Your task to perform on an android device: turn on javascript in the chrome app Image 0: 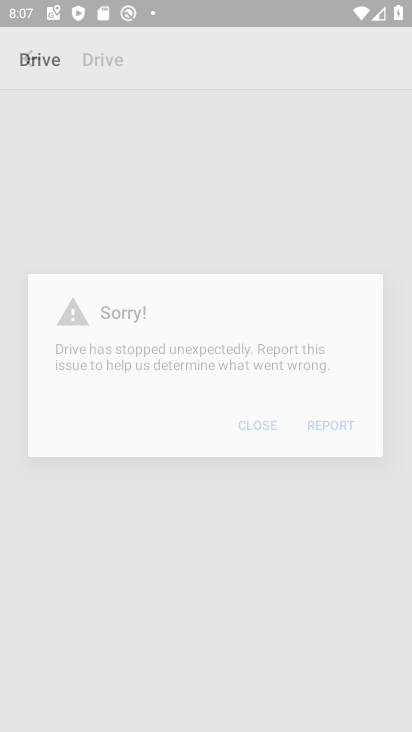
Step 0: drag from (373, 597) to (368, 419)
Your task to perform on an android device: turn on javascript in the chrome app Image 1: 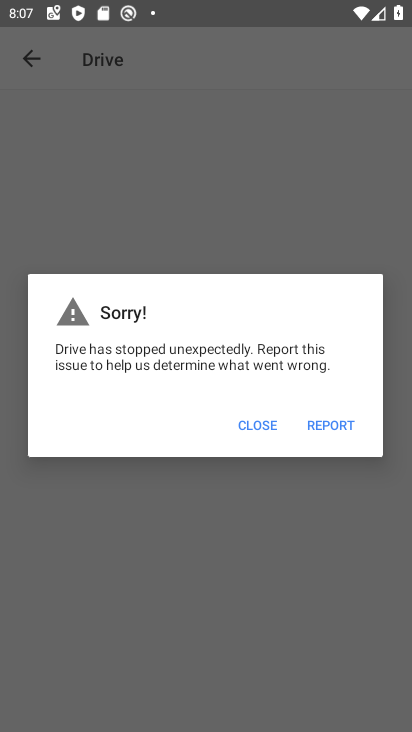
Step 1: press home button
Your task to perform on an android device: turn on javascript in the chrome app Image 2: 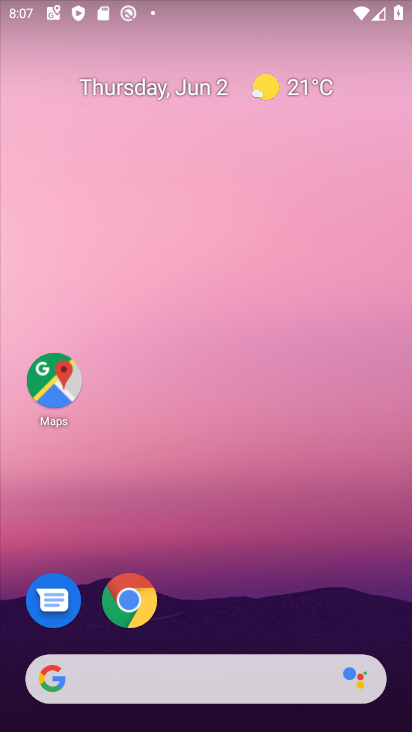
Step 2: drag from (375, 616) to (374, 252)
Your task to perform on an android device: turn on javascript in the chrome app Image 3: 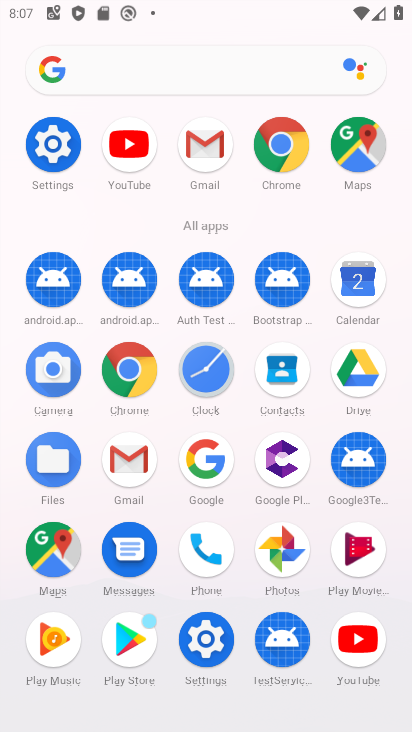
Step 3: click (142, 376)
Your task to perform on an android device: turn on javascript in the chrome app Image 4: 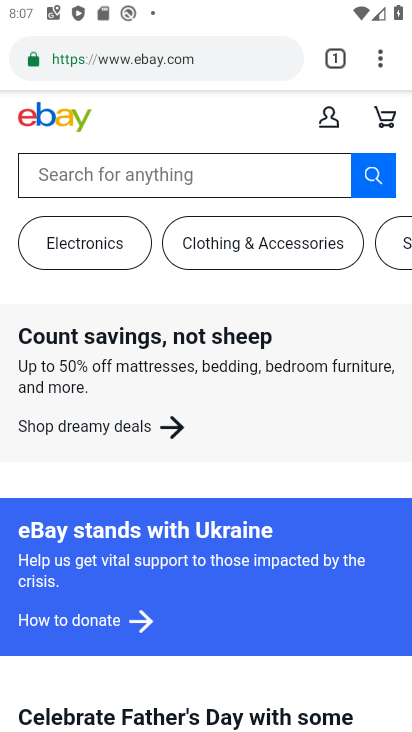
Step 4: click (381, 72)
Your task to perform on an android device: turn on javascript in the chrome app Image 5: 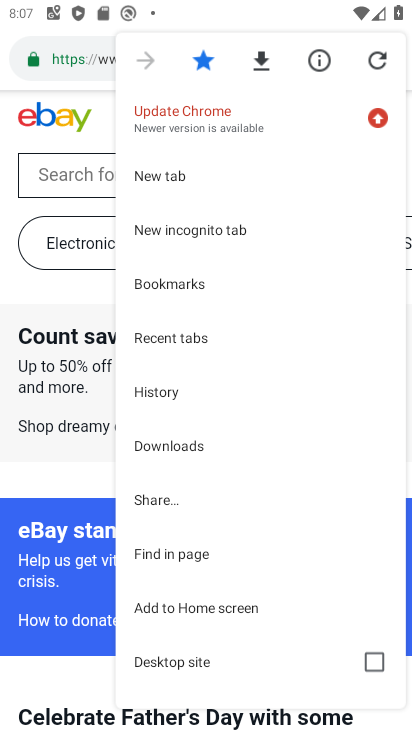
Step 5: drag from (298, 286) to (313, 187)
Your task to perform on an android device: turn on javascript in the chrome app Image 6: 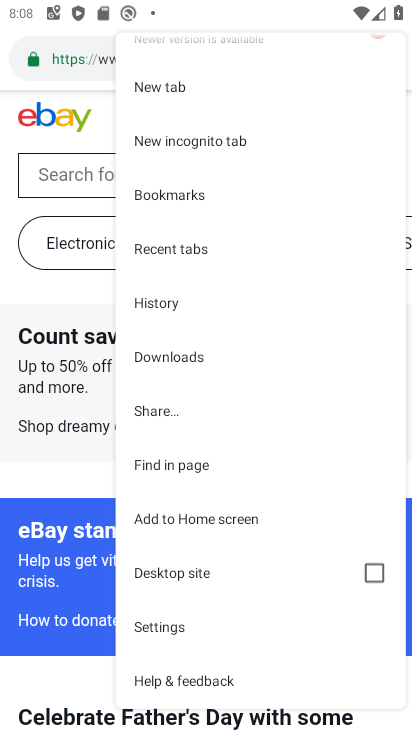
Step 6: drag from (311, 334) to (311, 248)
Your task to perform on an android device: turn on javascript in the chrome app Image 7: 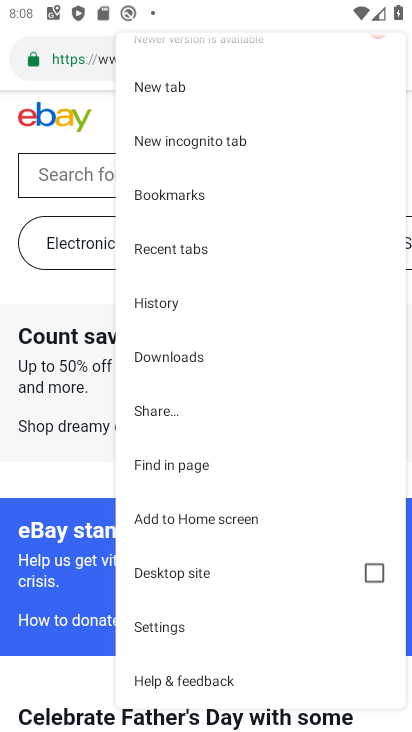
Step 7: drag from (313, 396) to (317, 327)
Your task to perform on an android device: turn on javascript in the chrome app Image 8: 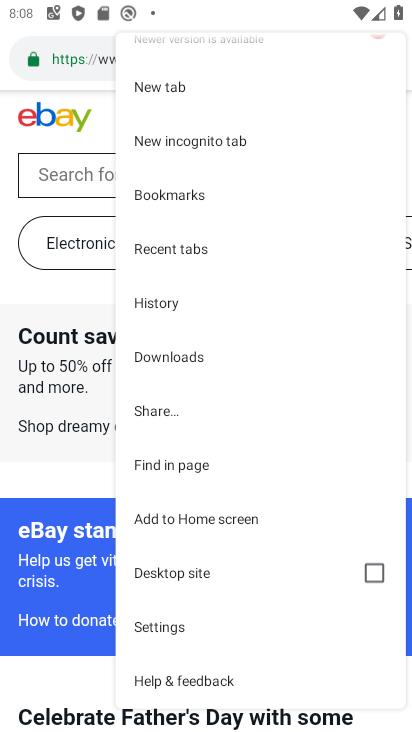
Step 8: click (188, 640)
Your task to perform on an android device: turn on javascript in the chrome app Image 9: 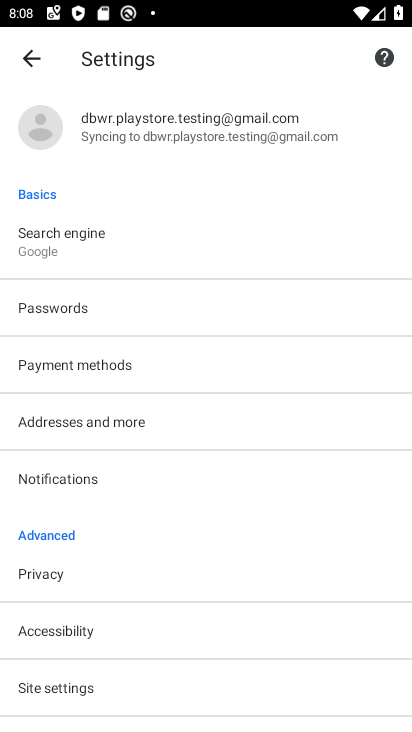
Step 9: drag from (277, 548) to (287, 438)
Your task to perform on an android device: turn on javascript in the chrome app Image 10: 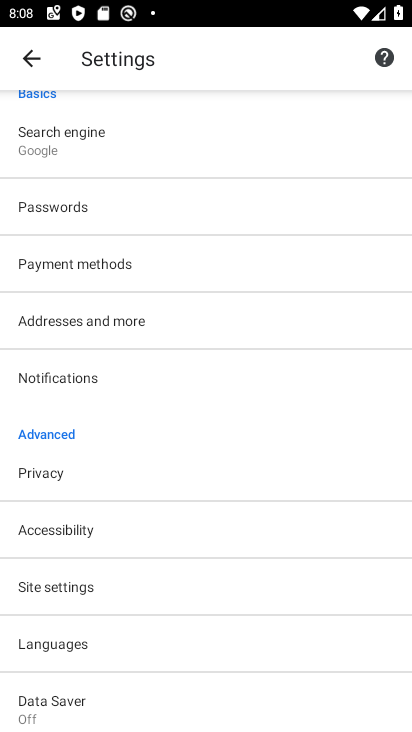
Step 10: drag from (282, 585) to (281, 491)
Your task to perform on an android device: turn on javascript in the chrome app Image 11: 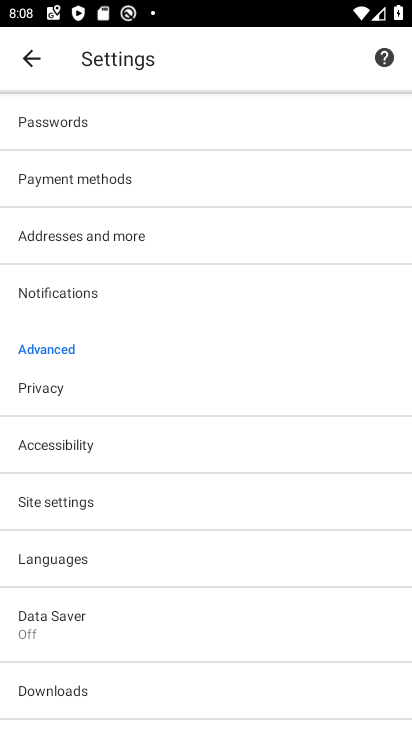
Step 11: drag from (279, 559) to (278, 488)
Your task to perform on an android device: turn on javascript in the chrome app Image 12: 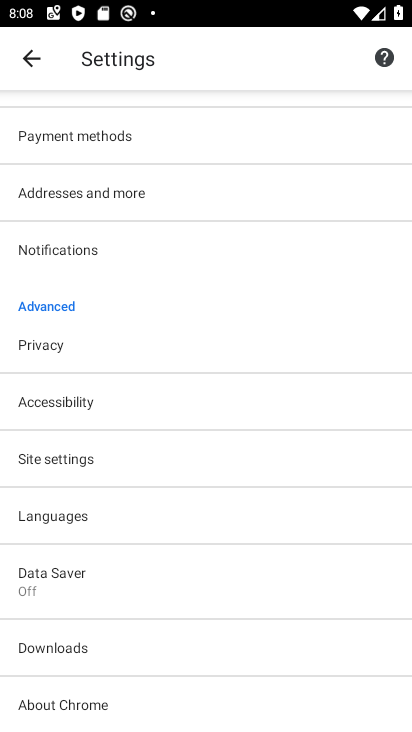
Step 12: drag from (278, 493) to (278, 384)
Your task to perform on an android device: turn on javascript in the chrome app Image 13: 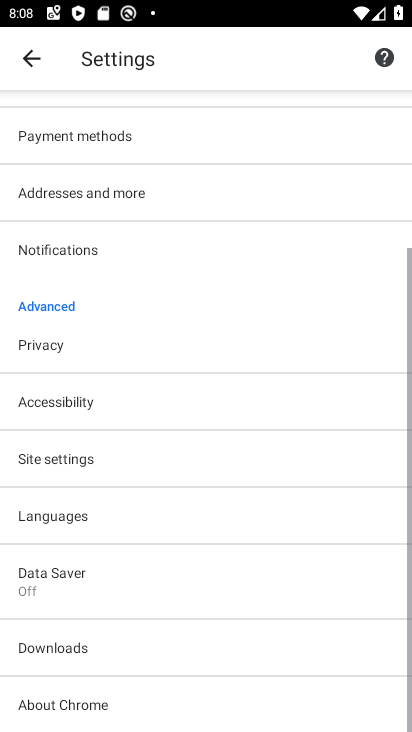
Step 13: click (259, 458)
Your task to perform on an android device: turn on javascript in the chrome app Image 14: 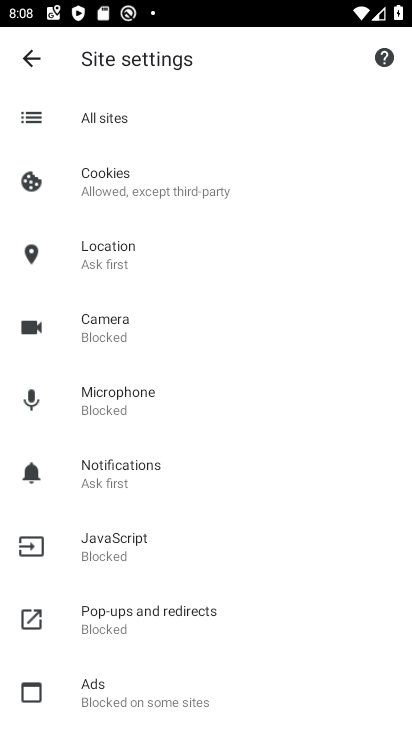
Step 14: drag from (227, 544) to (255, 413)
Your task to perform on an android device: turn on javascript in the chrome app Image 15: 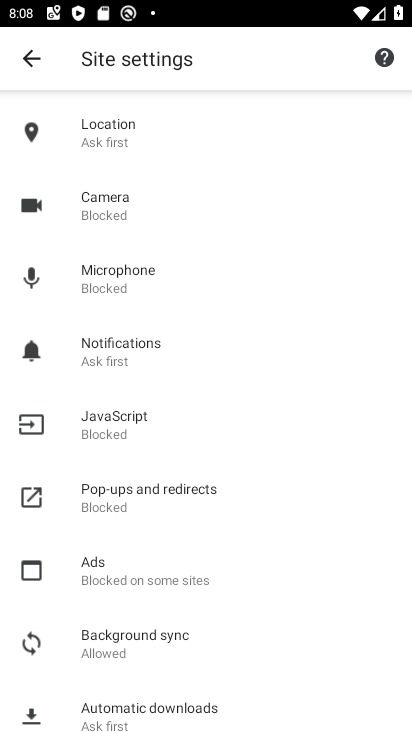
Step 15: click (161, 435)
Your task to perform on an android device: turn on javascript in the chrome app Image 16: 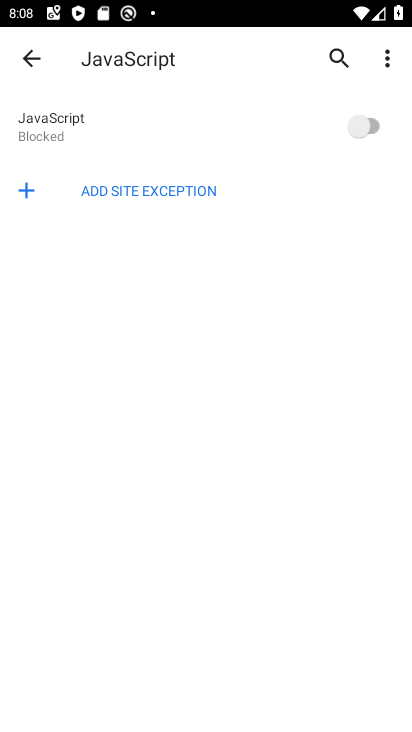
Step 16: click (360, 132)
Your task to perform on an android device: turn on javascript in the chrome app Image 17: 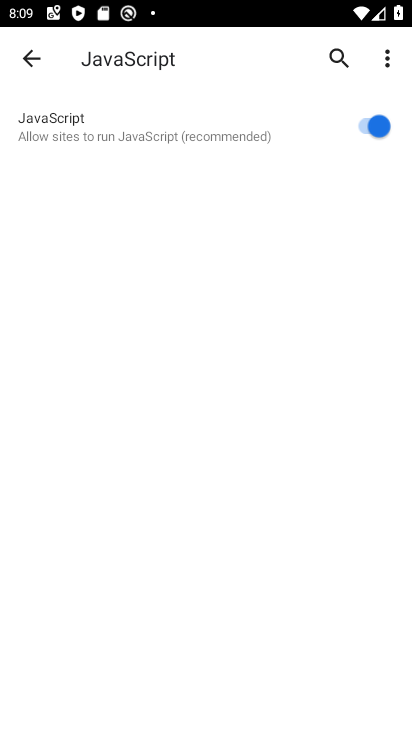
Step 17: task complete